Your task to perform on an android device: Is it going to rain tomorrow? Image 0: 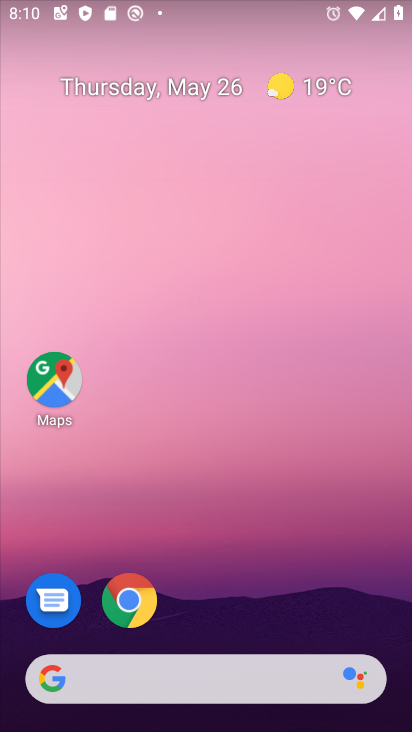
Step 0: click (62, 676)
Your task to perform on an android device: Is it going to rain tomorrow? Image 1: 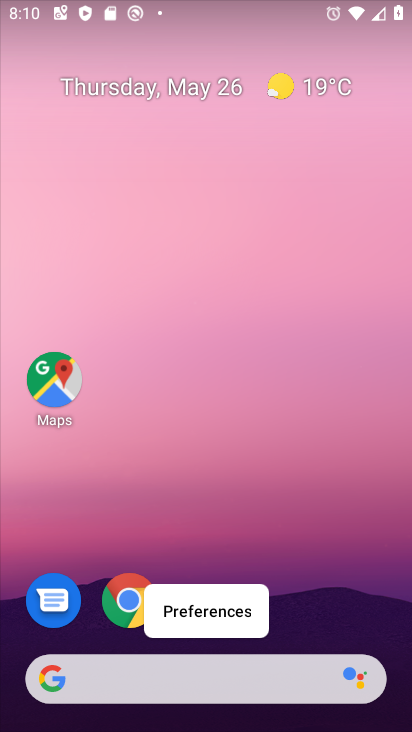
Step 1: click (49, 677)
Your task to perform on an android device: Is it going to rain tomorrow? Image 2: 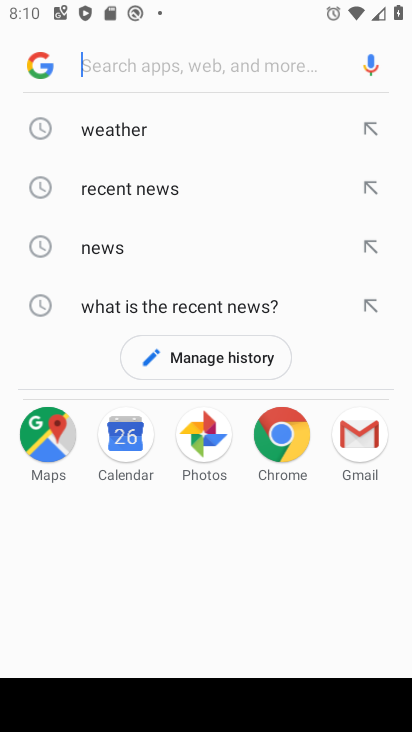
Step 2: type "rain tomorrow?"
Your task to perform on an android device: Is it going to rain tomorrow? Image 3: 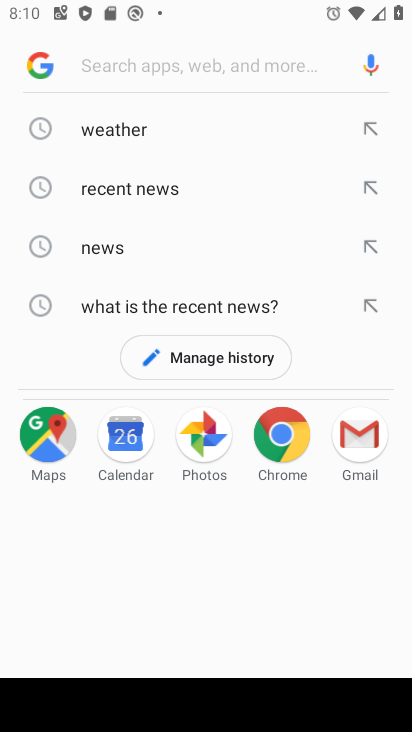
Step 3: click (183, 60)
Your task to perform on an android device: Is it going to rain tomorrow? Image 4: 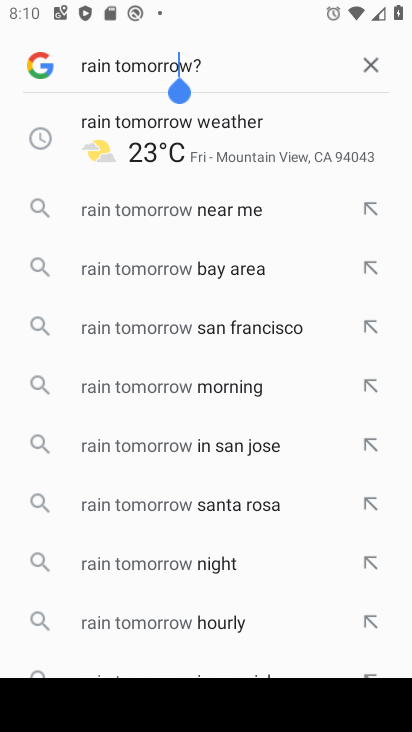
Step 4: click (177, 128)
Your task to perform on an android device: Is it going to rain tomorrow? Image 5: 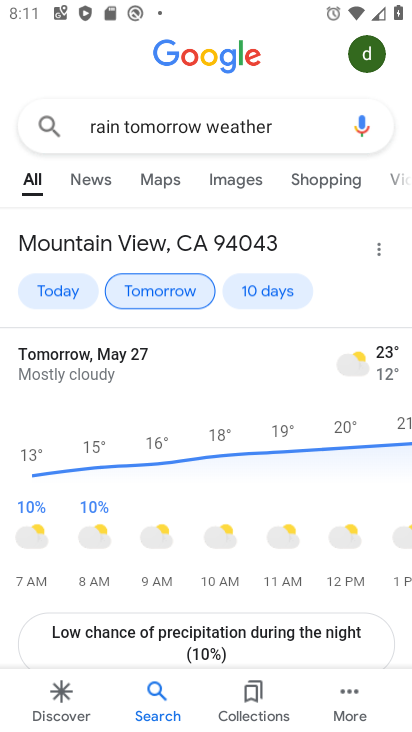
Step 5: task complete